Your task to perform on an android device: Search for Mexican restaurants on Maps Image 0: 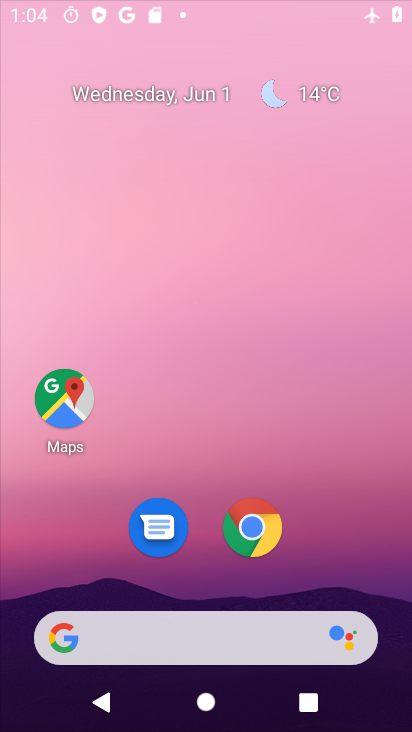
Step 0: click (312, 176)
Your task to perform on an android device: Search for Mexican restaurants on Maps Image 1: 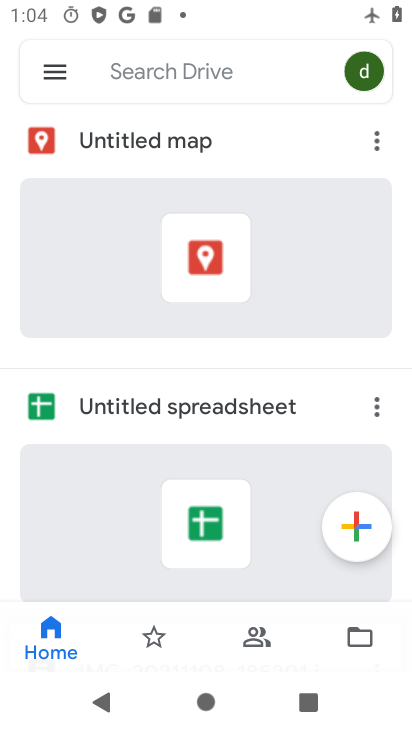
Step 1: press home button
Your task to perform on an android device: Search for Mexican restaurants on Maps Image 2: 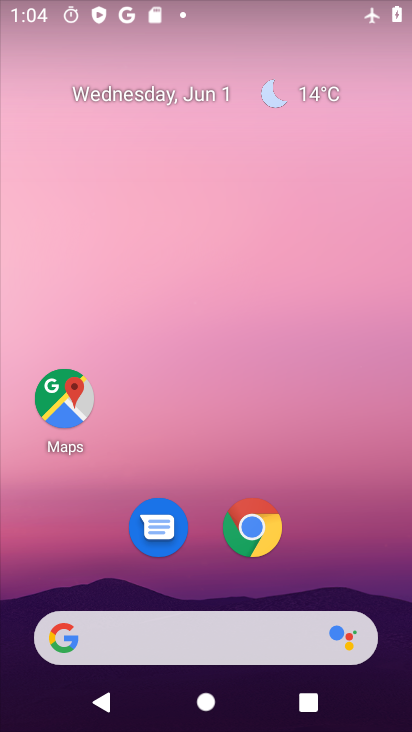
Step 2: drag from (220, 604) to (256, 110)
Your task to perform on an android device: Search for Mexican restaurants on Maps Image 3: 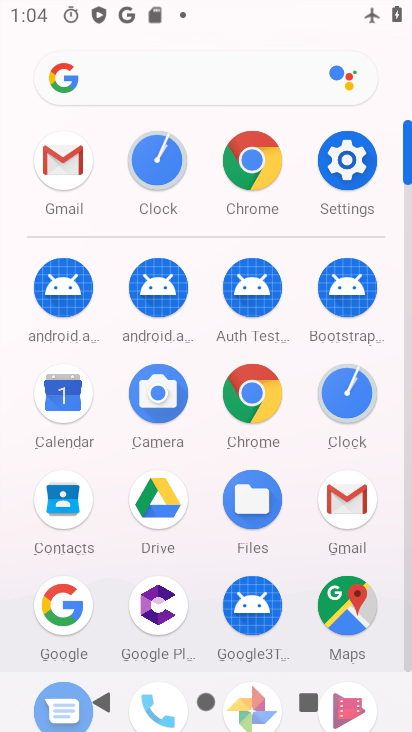
Step 3: drag from (212, 567) to (288, 250)
Your task to perform on an android device: Search for Mexican restaurants on Maps Image 4: 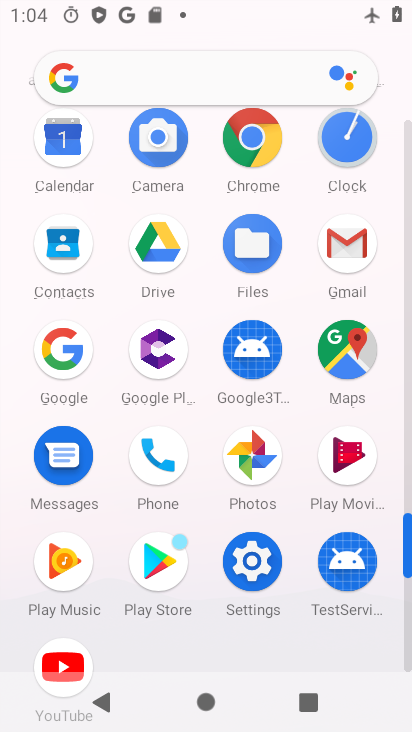
Step 4: click (352, 363)
Your task to perform on an android device: Search for Mexican restaurants on Maps Image 5: 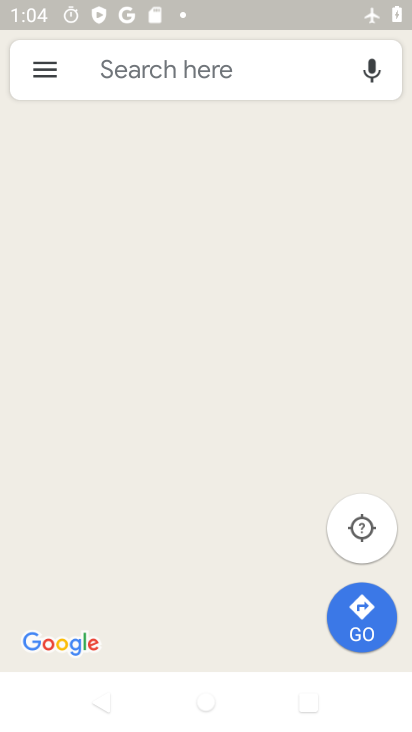
Step 5: click (222, 77)
Your task to perform on an android device: Search for Mexican restaurants on Maps Image 6: 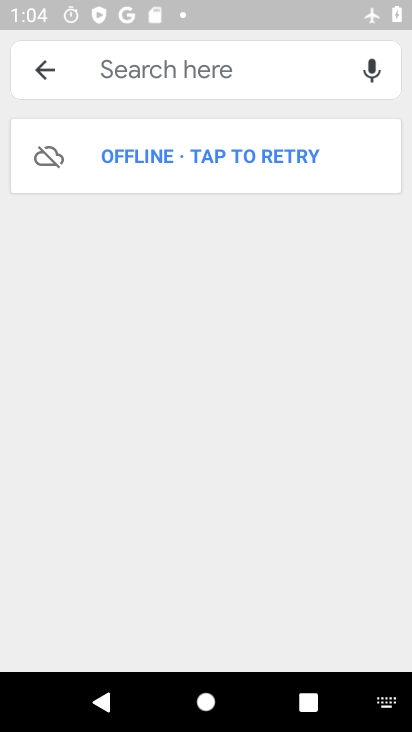
Step 6: task complete